Your task to perform on an android device: turn on translation in the chrome app Image 0: 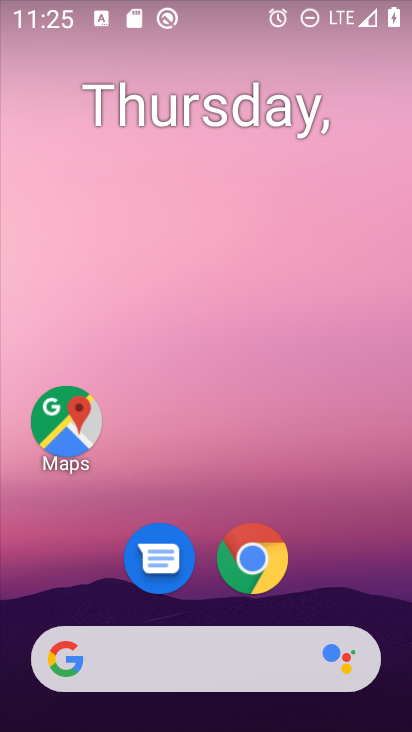
Step 0: click (250, 559)
Your task to perform on an android device: turn on translation in the chrome app Image 1: 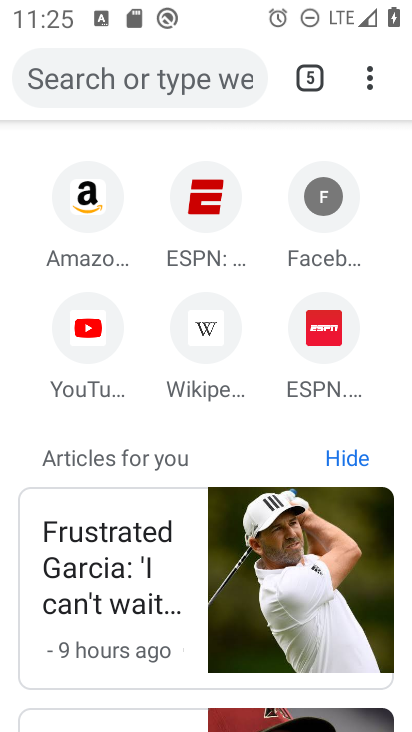
Step 1: click (366, 79)
Your task to perform on an android device: turn on translation in the chrome app Image 2: 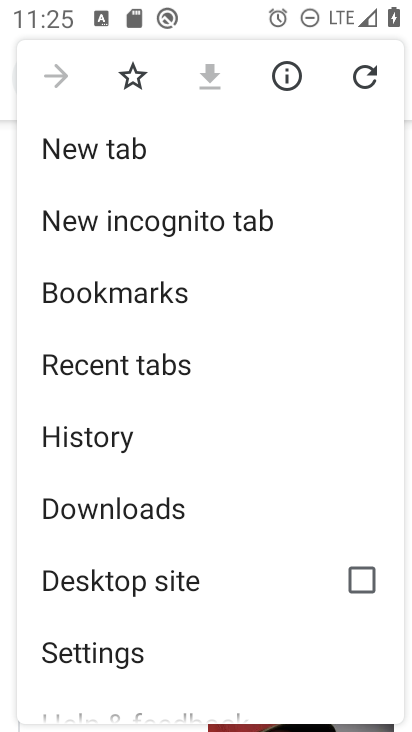
Step 2: drag from (217, 638) to (213, 345)
Your task to perform on an android device: turn on translation in the chrome app Image 3: 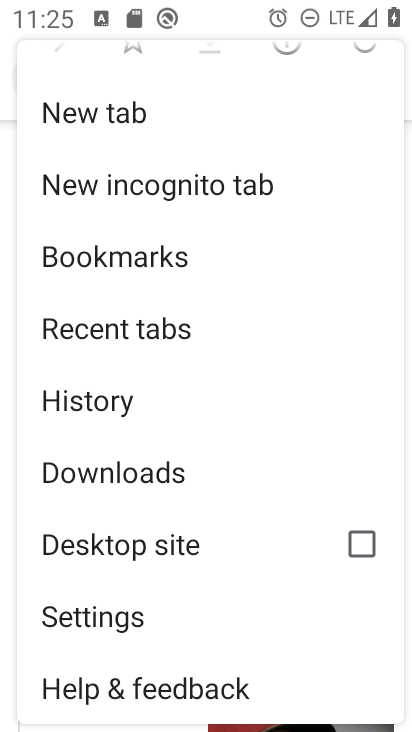
Step 3: click (96, 619)
Your task to perform on an android device: turn on translation in the chrome app Image 4: 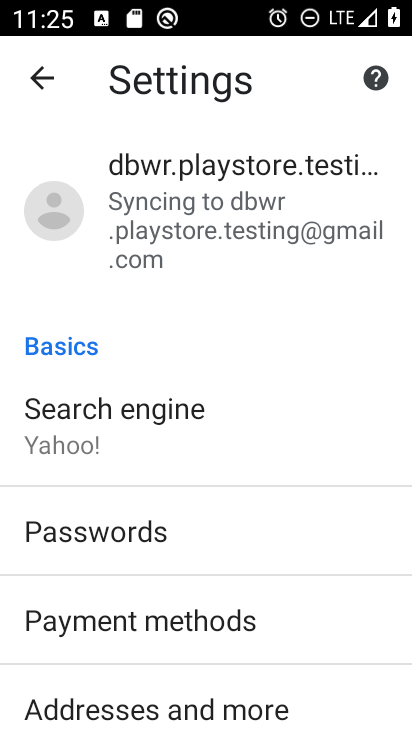
Step 4: drag from (309, 663) to (279, 208)
Your task to perform on an android device: turn on translation in the chrome app Image 5: 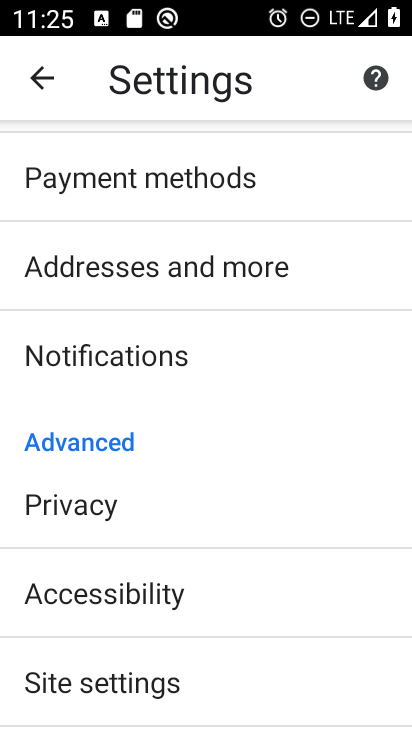
Step 5: drag from (270, 586) to (300, 224)
Your task to perform on an android device: turn on translation in the chrome app Image 6: 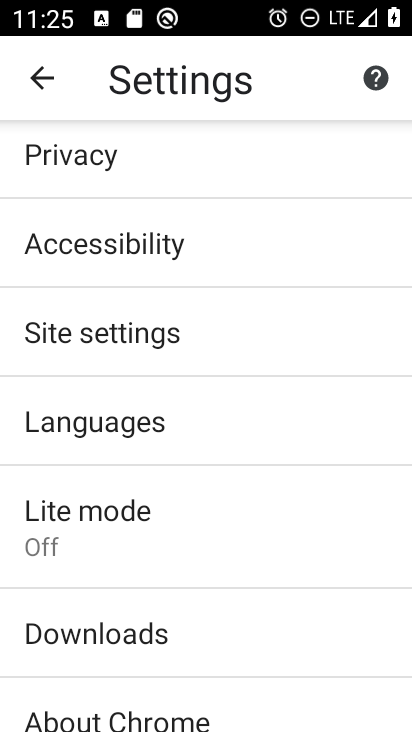
Step 6: click (68, 425)
Your task to perform on an android device: turn on translation in the chrome app Image 7: 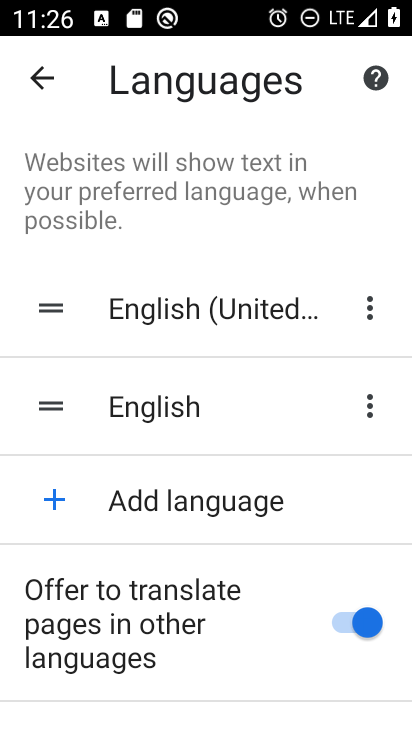
Step 7: task complete